Your task to perform on an android device: toggle translation in the chrome app Image 0: 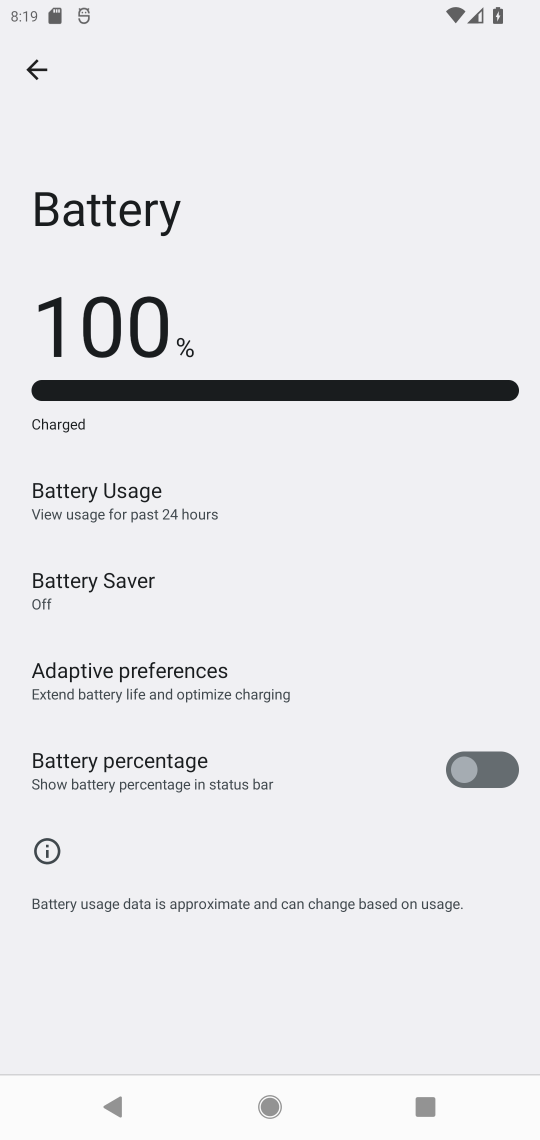
Step 0: press home button
Your task to perform on an android device: toggle translation in the chrome app Image 1: 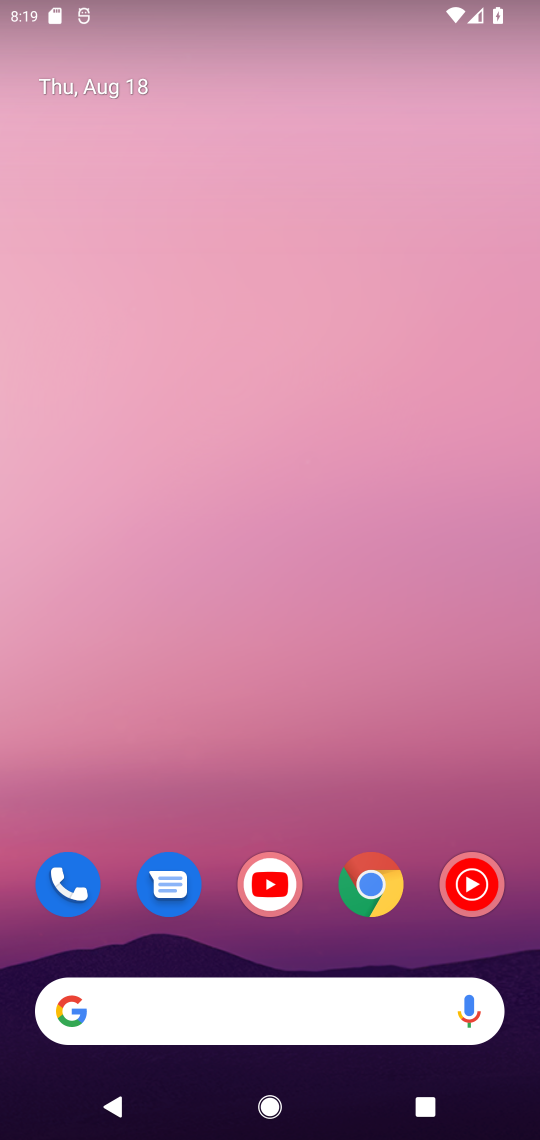
Step 1: click (377, 900)
Your task to perform on an android device: toggle translation in the chrome app Image 2: 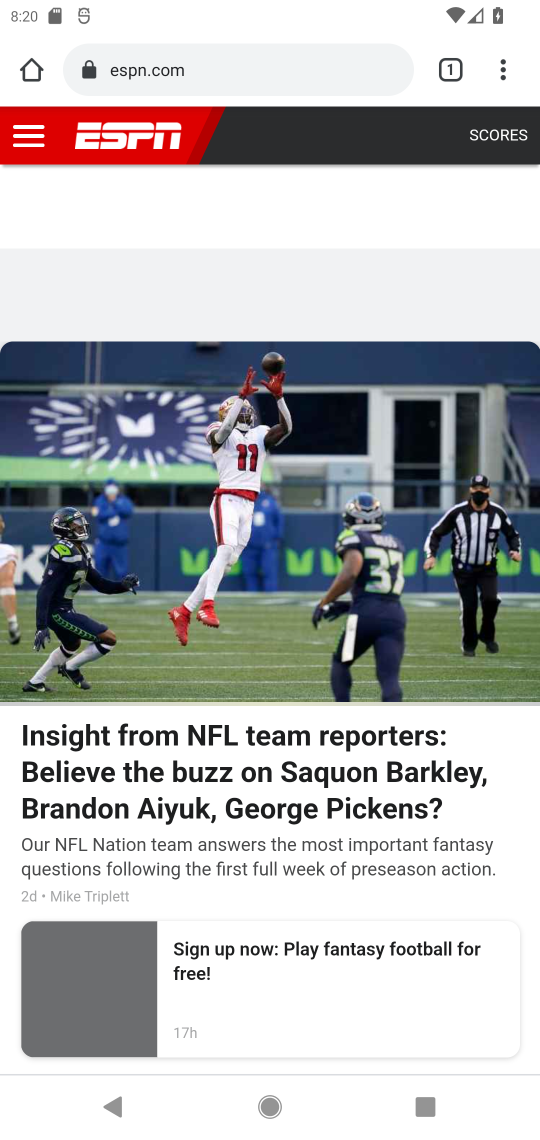
Step 2: click (512, 63)
Your task to perform on an android device: toggle translation in the chrome app Image 3: 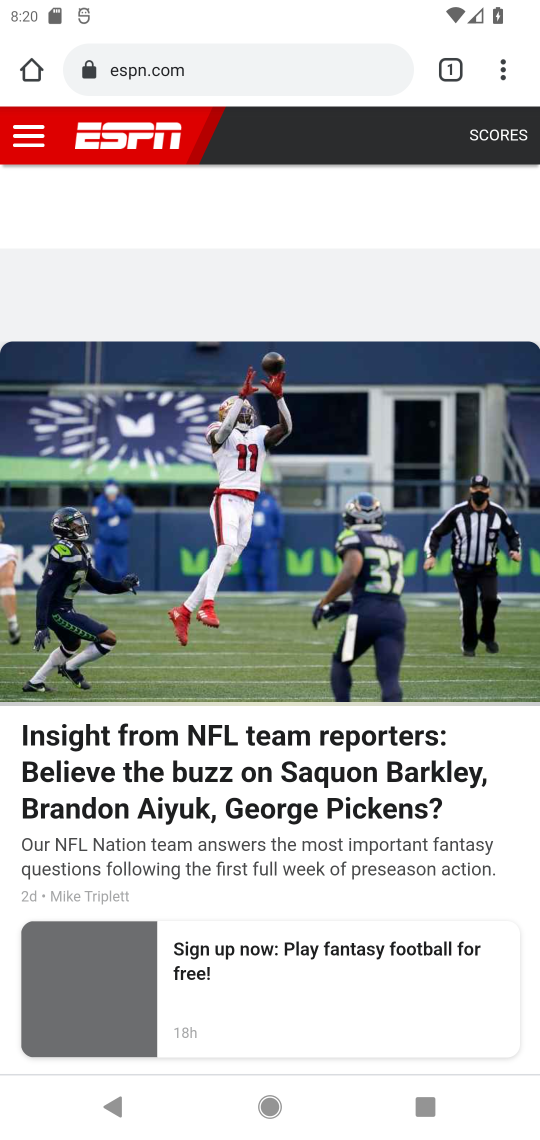
Step 3: click (512, 63)
Your task to perform on an android device: toggle translation in the chrome app Image 4: 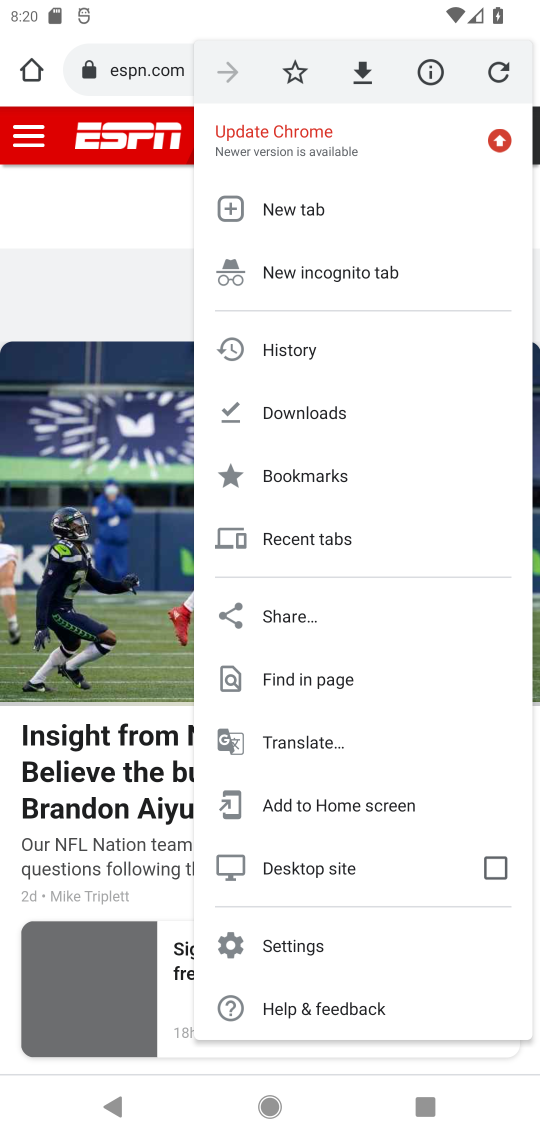
Step 4: click (300, 952)
Your task to perform on an android device: toggle translation in the chrome app Image 5: 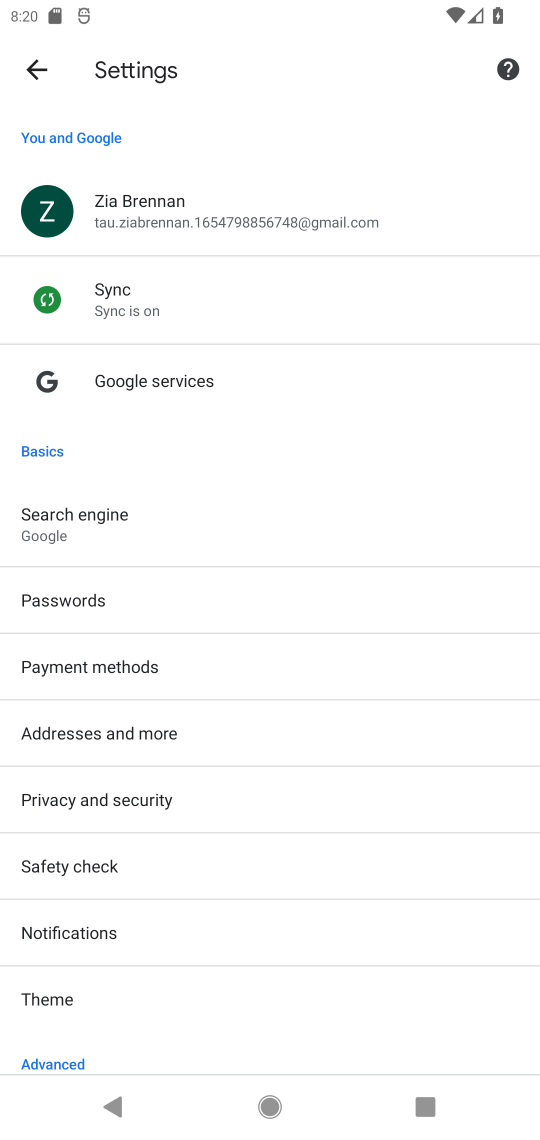
Step 5: drag from (104, 433) to (99, 342)
Your task to perform on an android device: toggle translation in the chrome app Image 6: 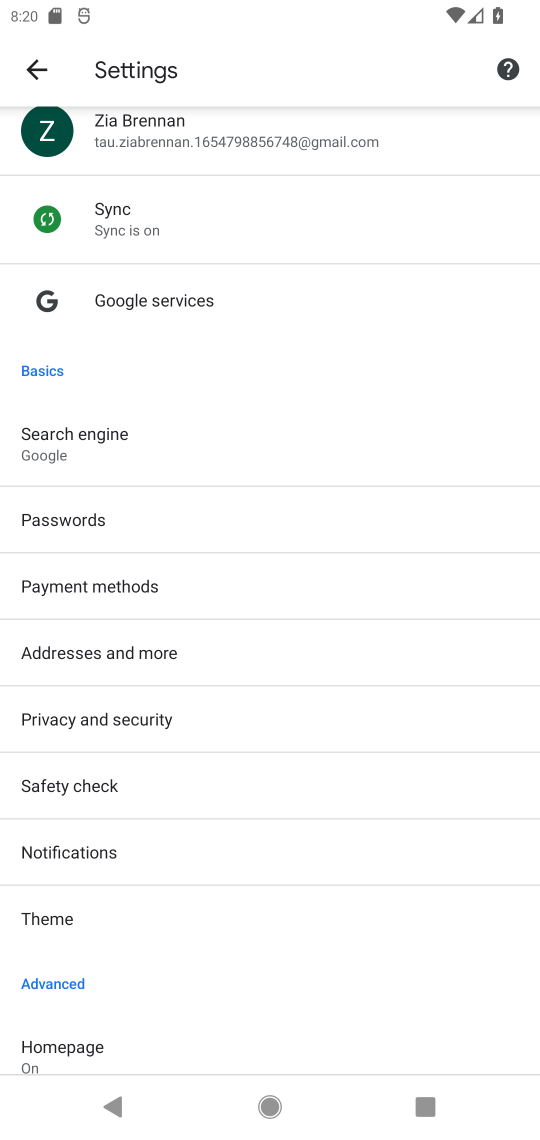
Step 6: drag from (126, 1019) to (308, 191)
Your task to perform on an android device: toggle translation in the chrome app Image 7: 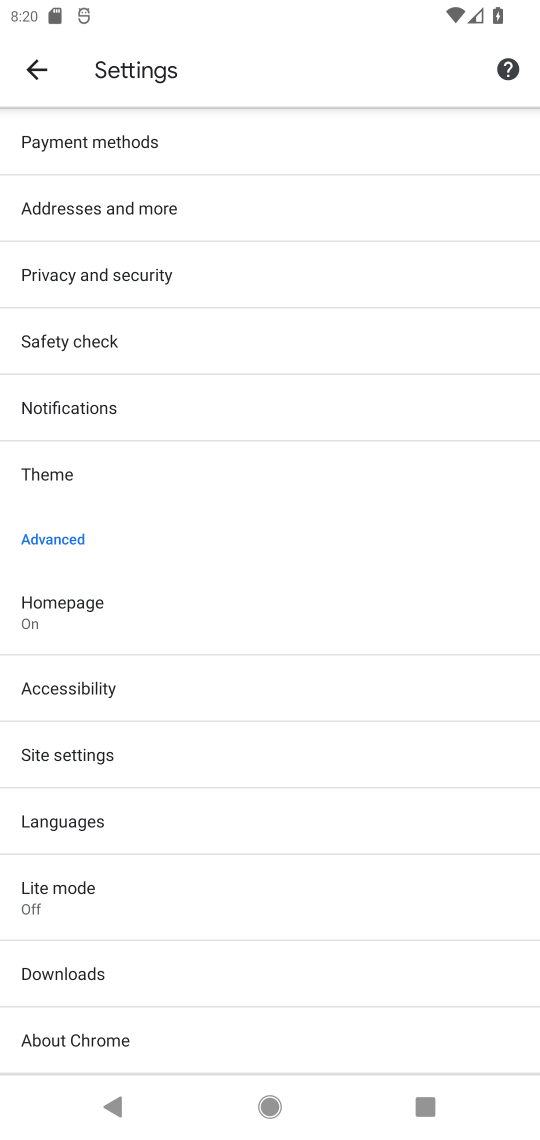
Step 7: click (130, 805)
Your task to perform on an android device: toggle translation in the chrome app Image 8: 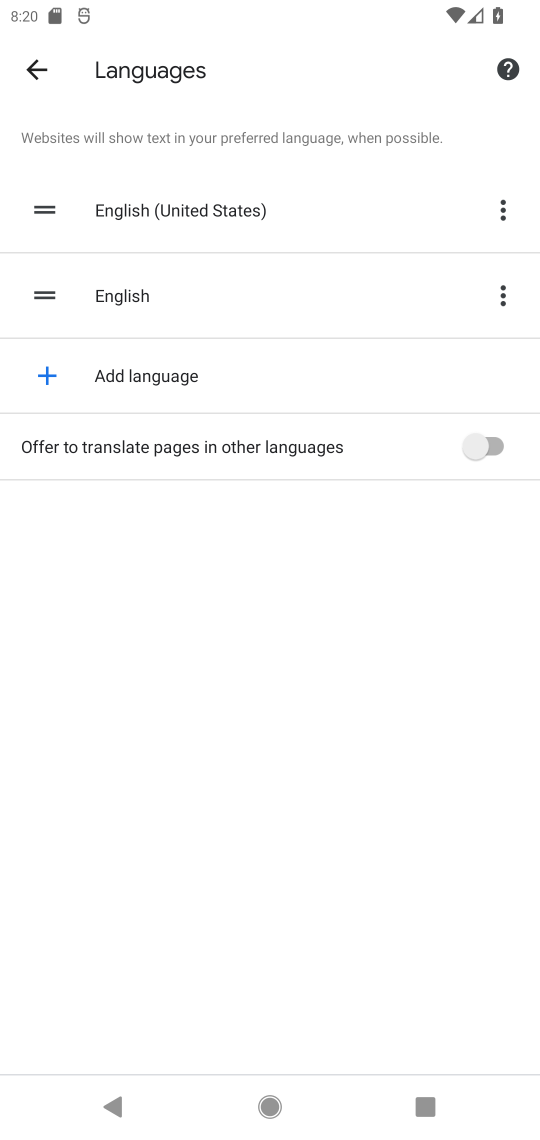
Step 8: click (477, 444)
Your task to perform on an android device: toggle translation in the chrome app Image 9: 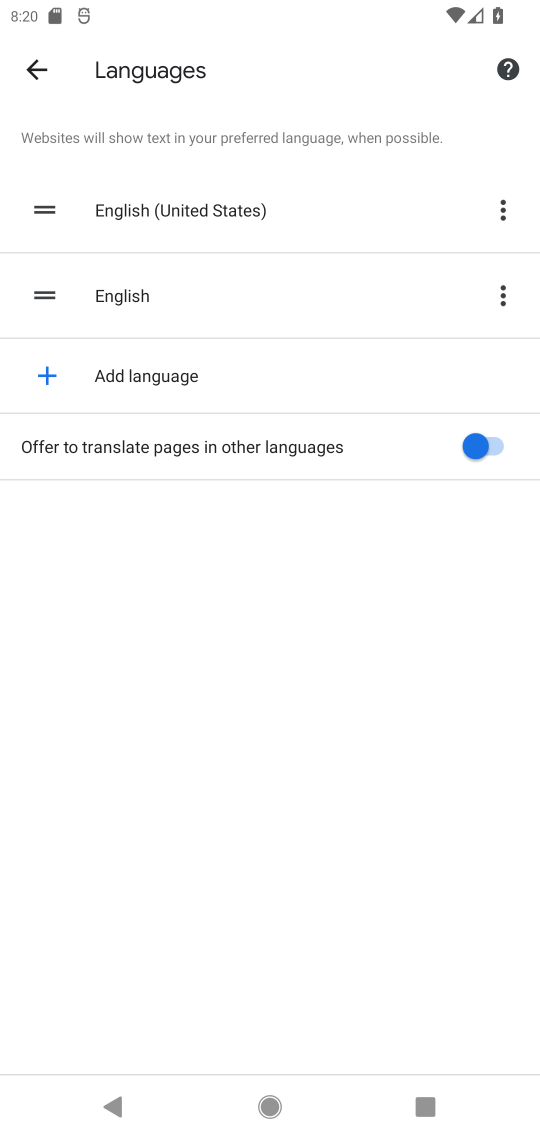
Step 9: click (489, 443)
Your task to perform on an android device: toggle translation in the chrome app Image 10: 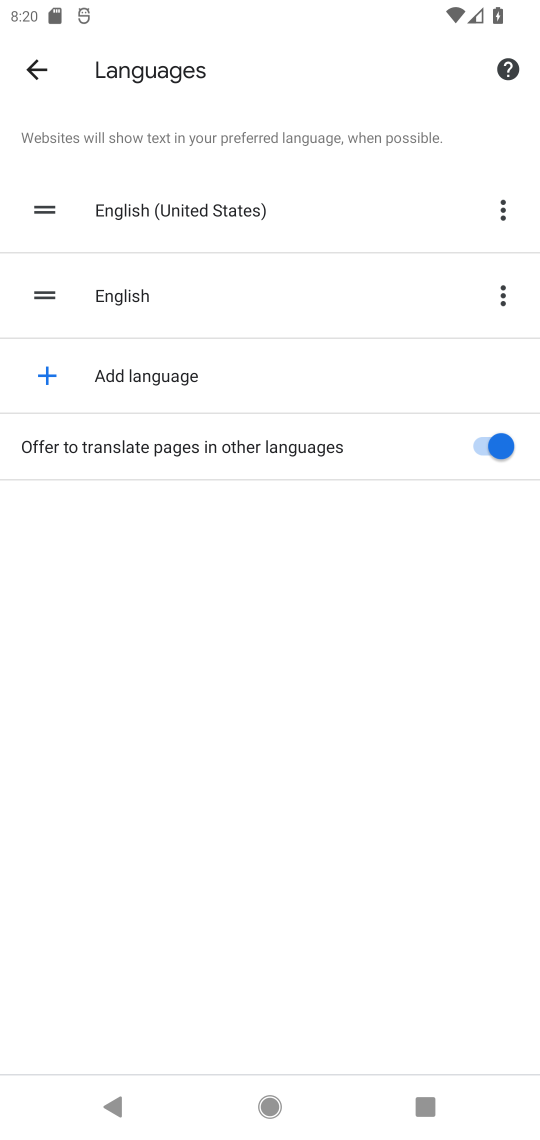
Step 10: click (489, 443)
Your task to perform on an android device: toggle translation in the chrome app Image 11: 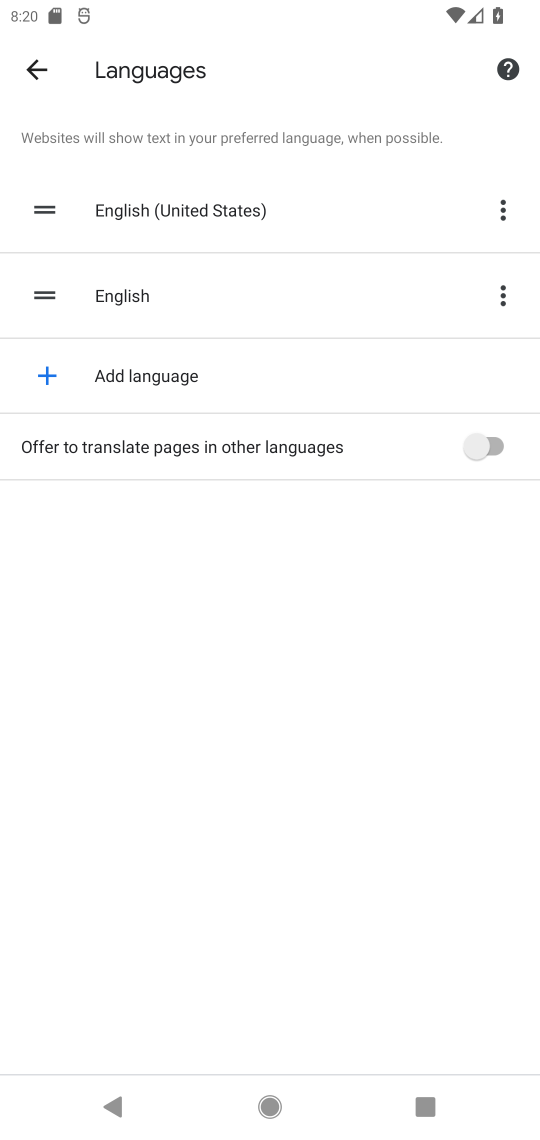
Step 11: click (489, 443)
Your task to perform on an android device: toggle translation in the chrome app Image 12: 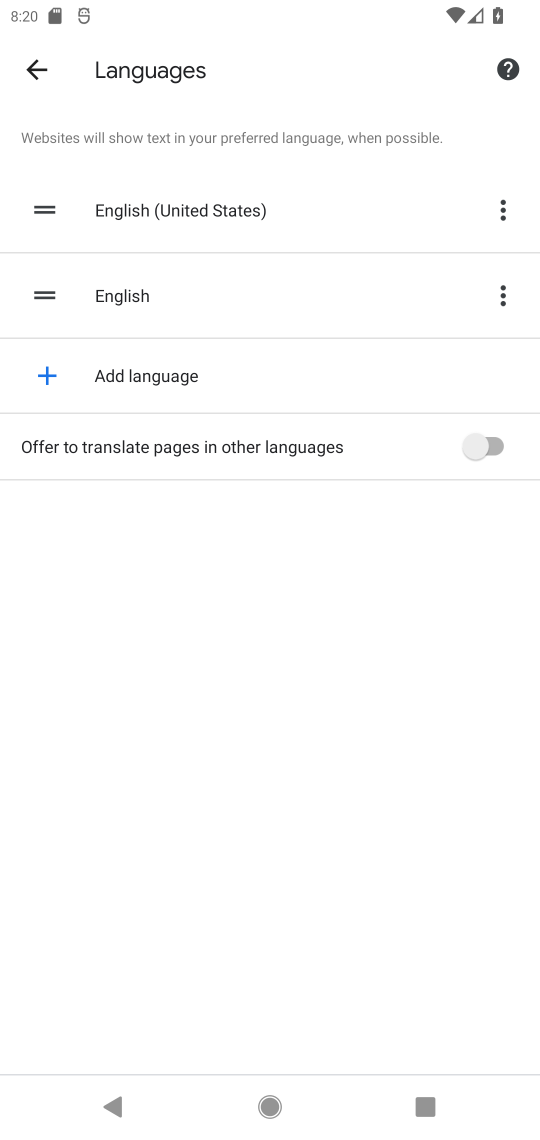
Step 12: task complete